Your task to perform on an android device: star an email in the gmail app Image 0: 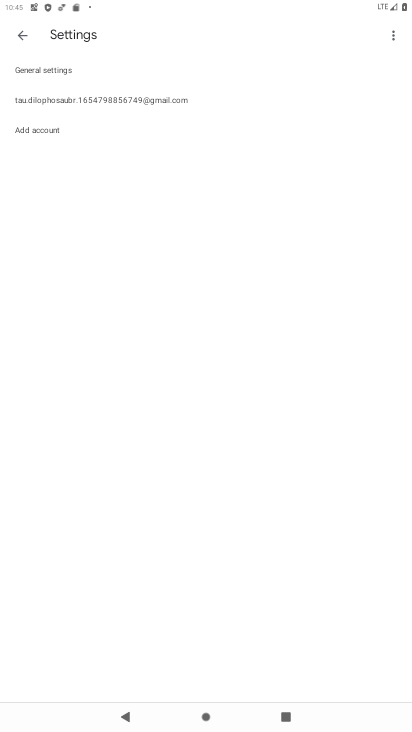
Step 0: press home button
Your task to perform on an android device: star an email in the gmail app Image 1: 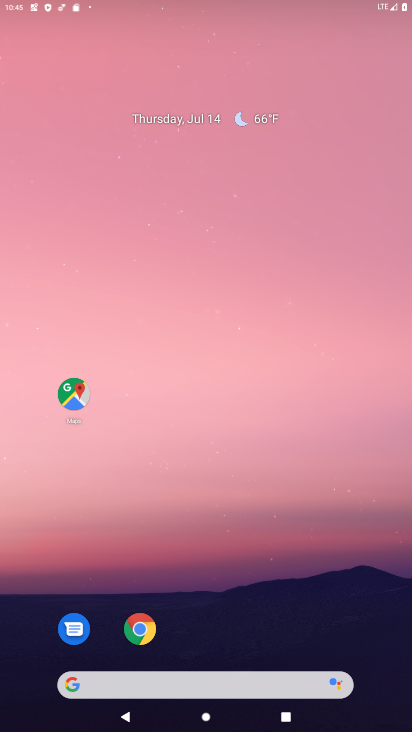
Step 1: drag from (226, 611) to (235, 27)
Your task to perform on an android device: star an email in the gmail app Image 2: 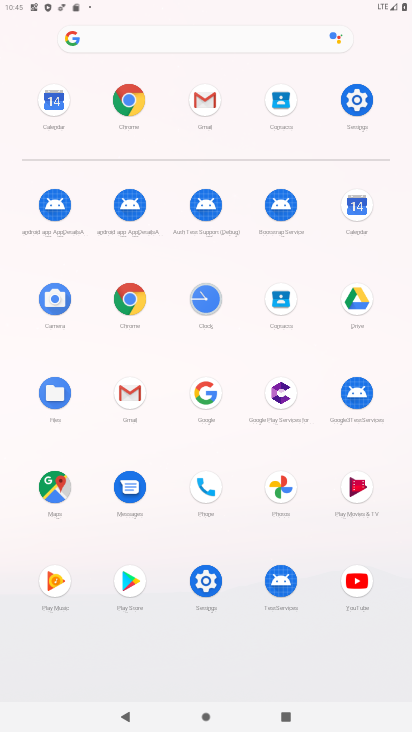
Step 2: click (206, 99)
Your task to perform on an android device: star an email in the gmail app Image 3: 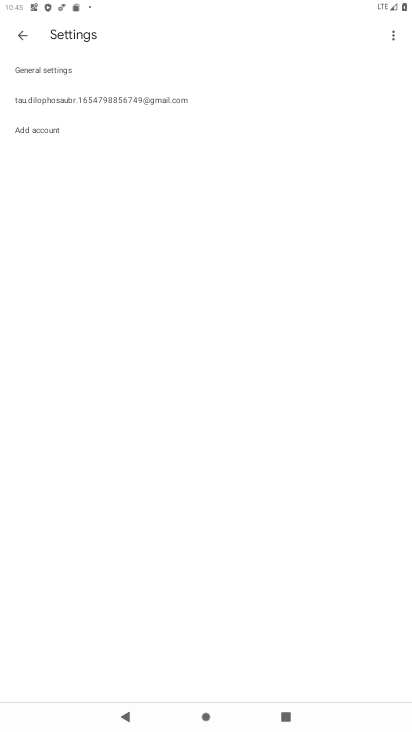
Step 3: click (25, 28)
Your task to perform on an android device: star an email in the gmail app Image 4: 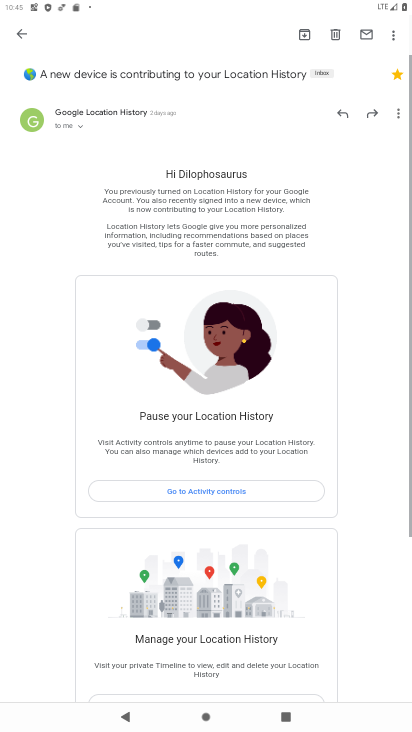
Step 4: click (16, 26)
Your task to perform on an android device: star an email in the gmail app Image 5: 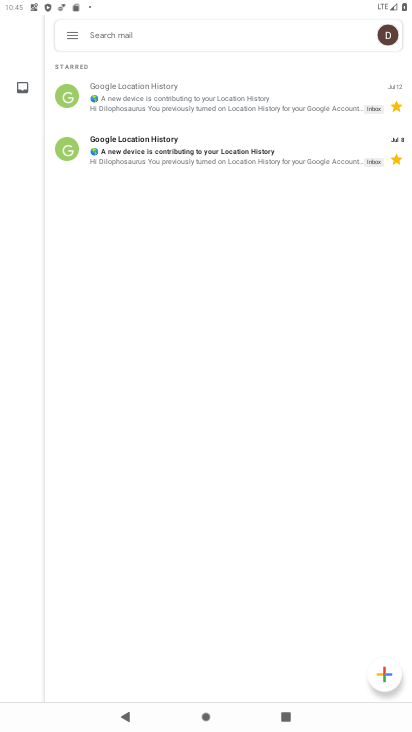
Step 5: task complete